Your task to perform on an android device: see creations saved in the google photos Image 0: 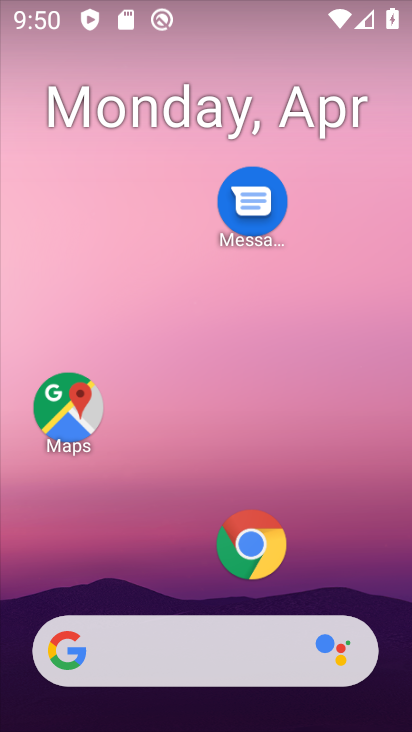
Step 0: drag from (197, 580) to (229, 40)
Your task to perform on an android device: see creations saved in the google photos Image 1: 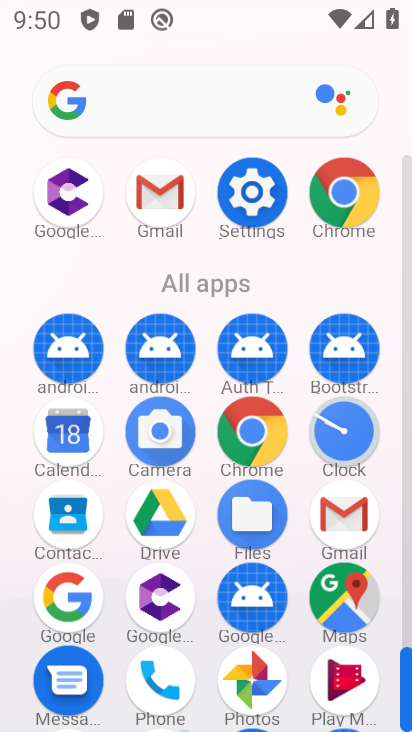
Step 1: click (251, 671)
Your task to perform on an android device: see creations saved in the google photos Image 2: 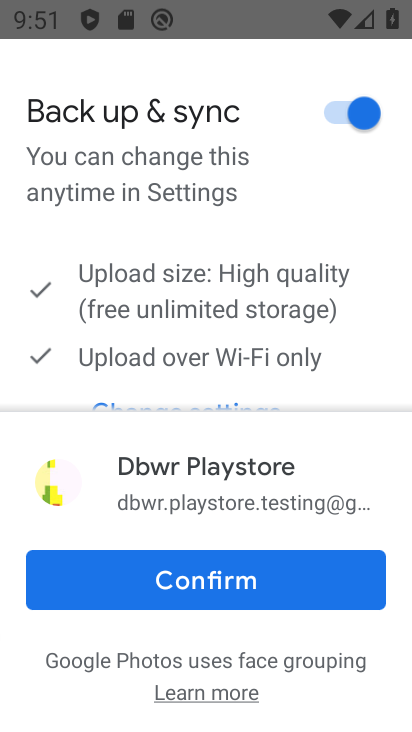
Step 2: click (203, 578)
Your task to perform on an android device: see creations saved in the google photos Image 3: 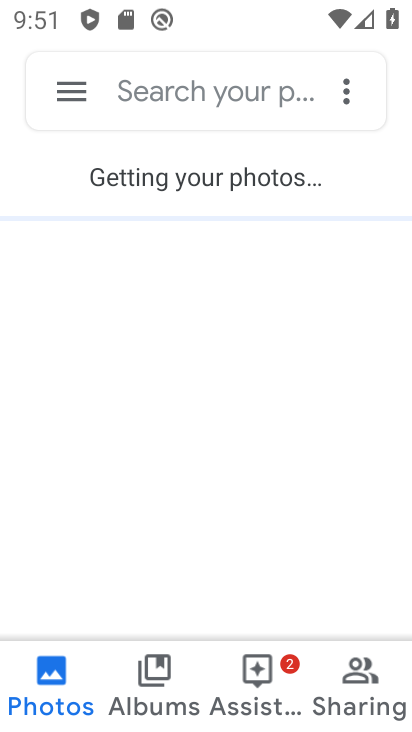
Step 3: click (162, 90)
Your task to perform on an android device: see creations saved in the google photos Image 4: 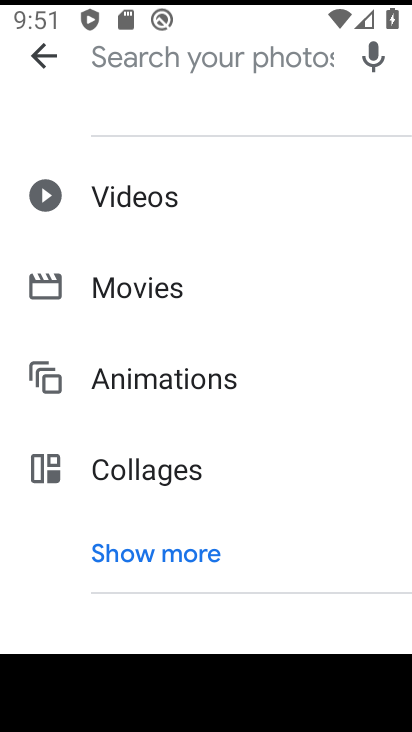
Step 4: click (162, 553)
Your task to perform on an android device: see creations saved in the google photos Image 5: 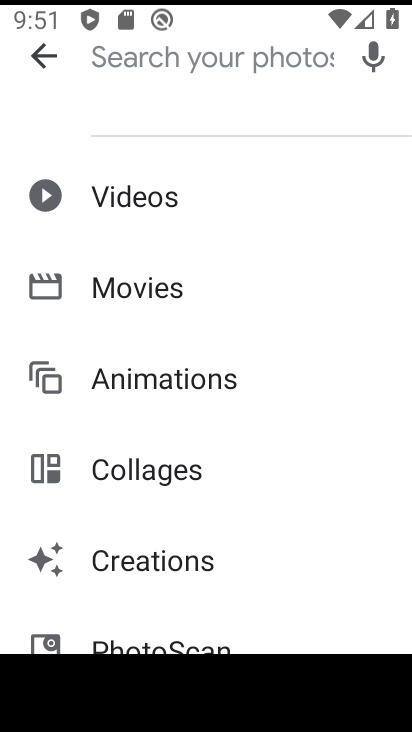
Step 5: click (176, 557)
Your task to perform on an android device: see creations saved in the google photos Image 6: 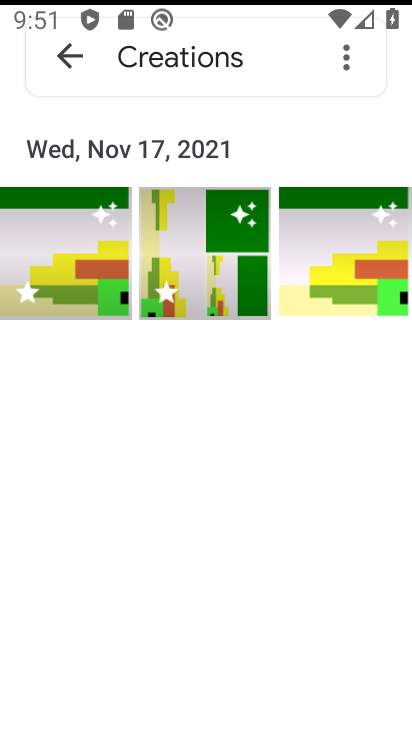
Step 6: task complete